Your task to perform on an android device: Go to location settings Image 0: 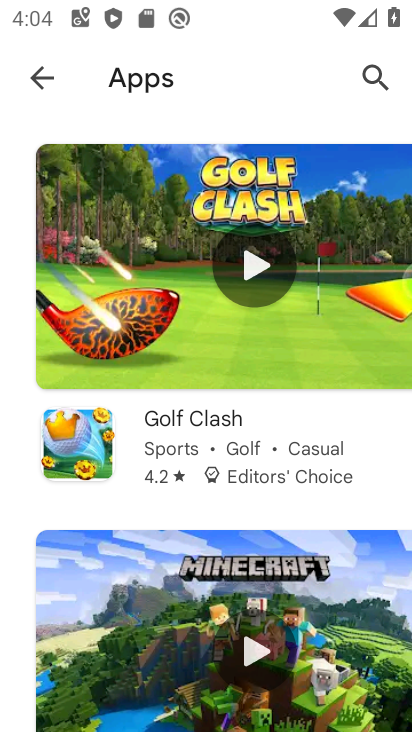
Step 0: press back button
Your task to perform on an android device: Go to location settings Image 1: 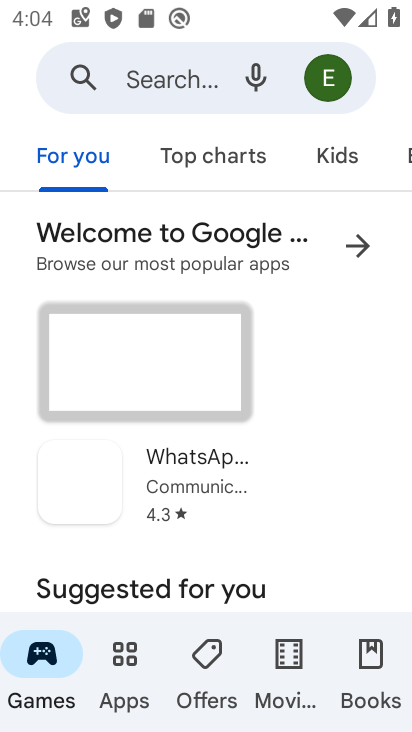
Step 1: press back button
Your task to perform on an android device: Go to location settings Image 2: 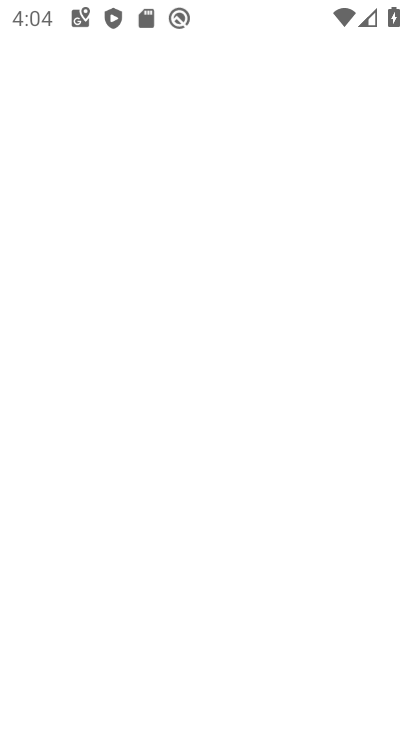
Step 2: press back button
Your task to perform on an android device: Go to location settings Image 3: 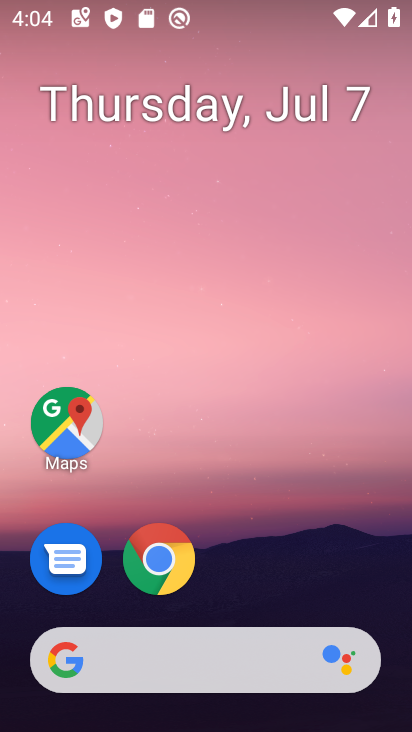
Step 3: drag from (246, 616) to (338, 4)
Your task to perform on an android device: Go to location settings Image 4: 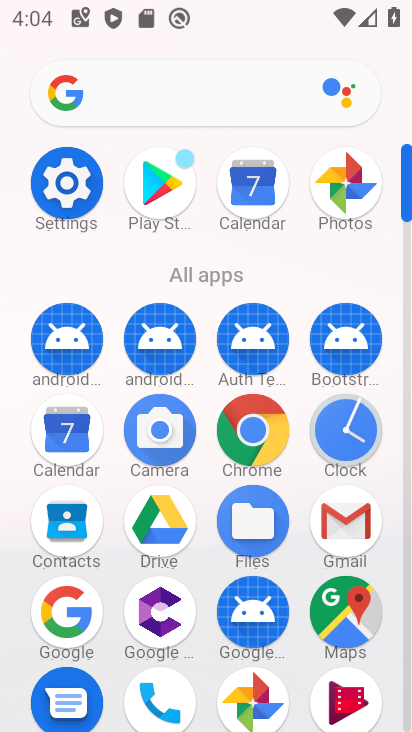
Step 4: click (60, 174)
Your task to perform on an android device: Go to location settings Image 5: 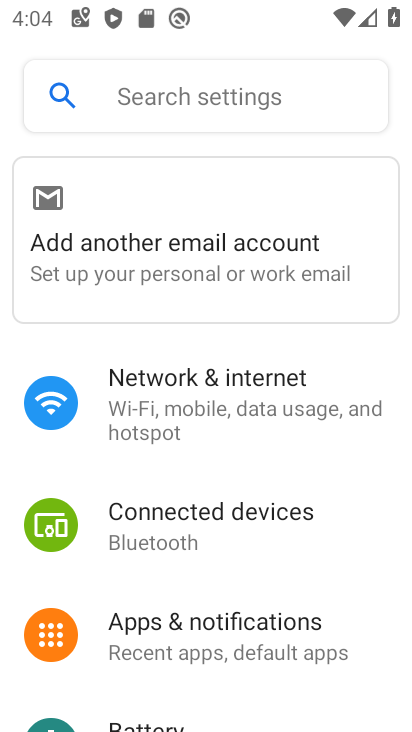
Step 5: drag from (209, 652) to (243, 72)
Your task to perform on an android device: Go to location settings Image 6: 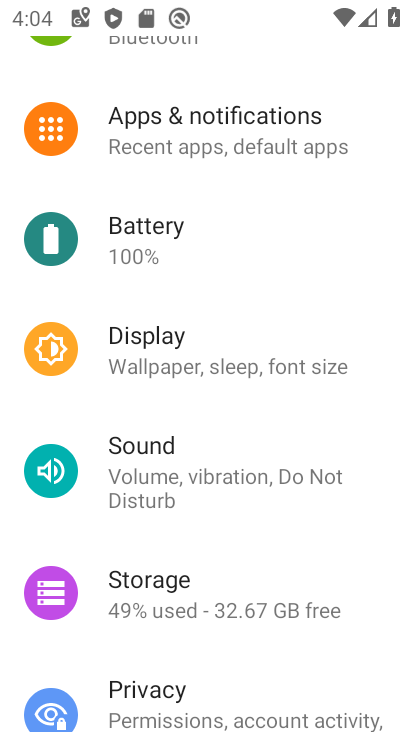
Step 6: drag from (201, 614) to (254, 60)
Your task to perform on an android device: Go to location settings Image 7: 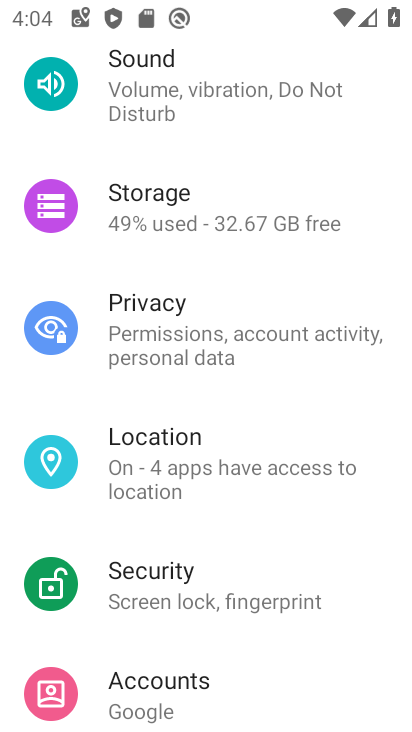
Step 7: click (187, 461)
Your task to perform on an android device: Go to location settings Image 8: 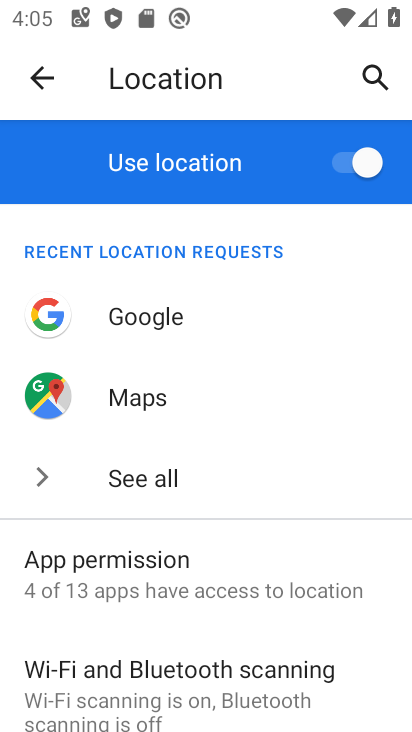
Step 8: task complete